Your task to perform on an android device: Go to internet settings Image 0: 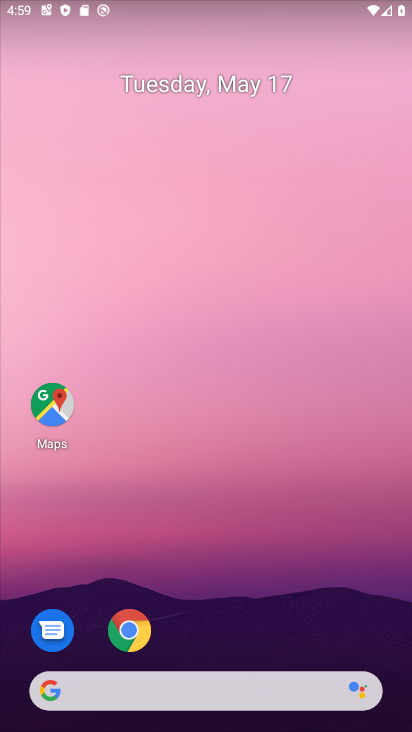
Step 0: drag from (327, 621) to (332, 155)
Your task to perform on an android device: Go to internet settings Image 1: 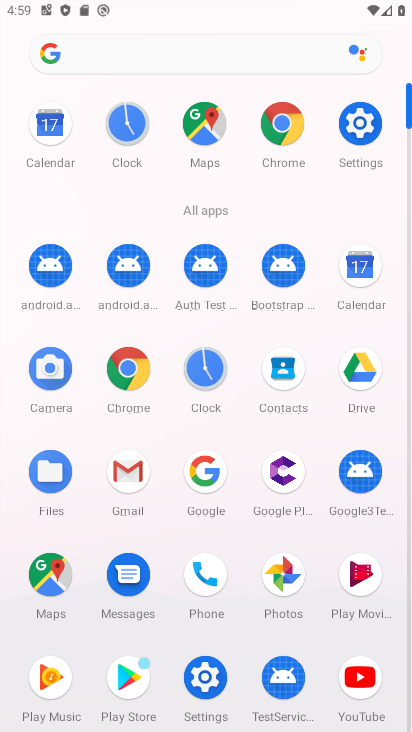
Step 1: click (361, 120)
Your task to perform on an android device: Go to internet settings Image 2: 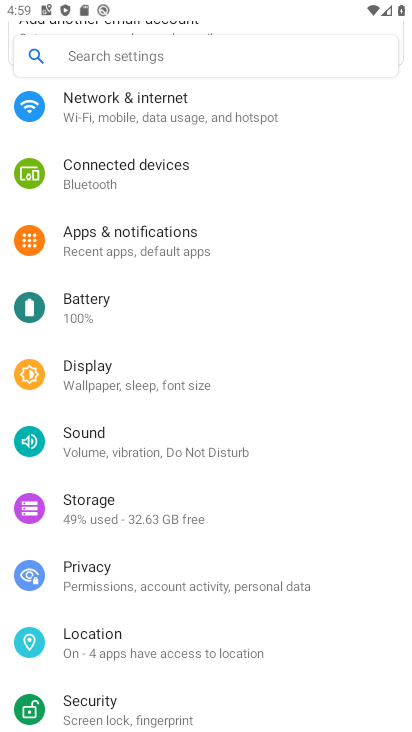
Step 2: click (147, 107)
Your task to perform on an android device: Go to internet settings Image 3: 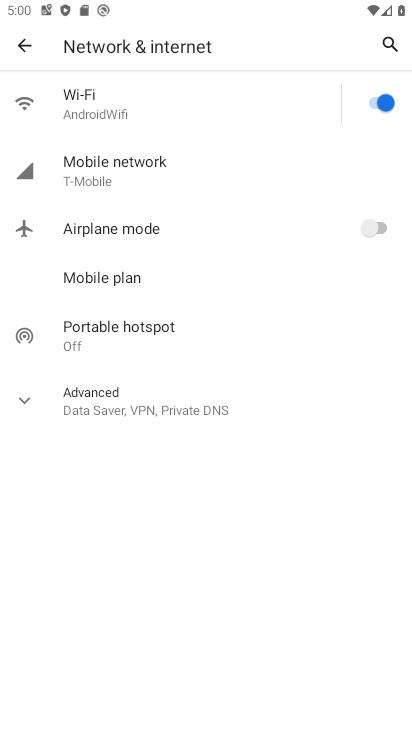
Step 3: click (125, 420)
Your task to perform on an android device: Go to internet settings Image 4: 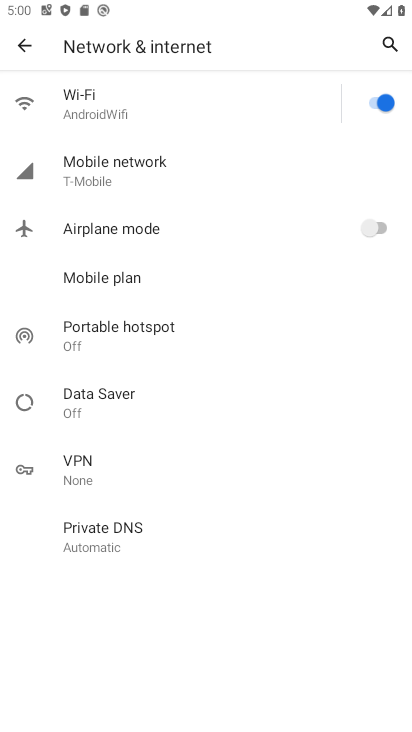
Step 4: task complete